Your task to perform on an android device: Open privacy settings Image 0: 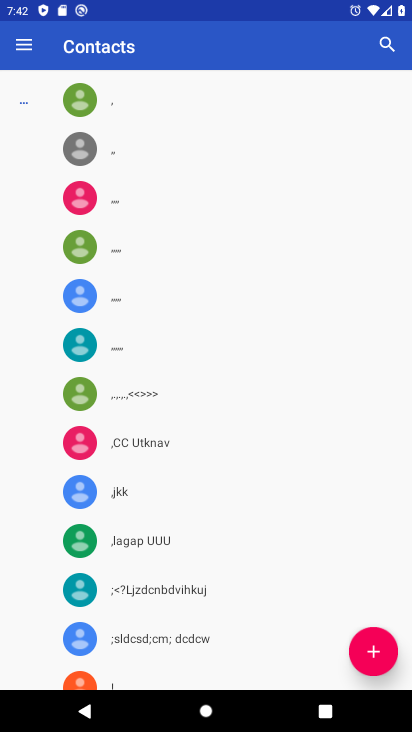
Step 0: press home button
Your task to perform on an android device: Open privacy settings Image 1: 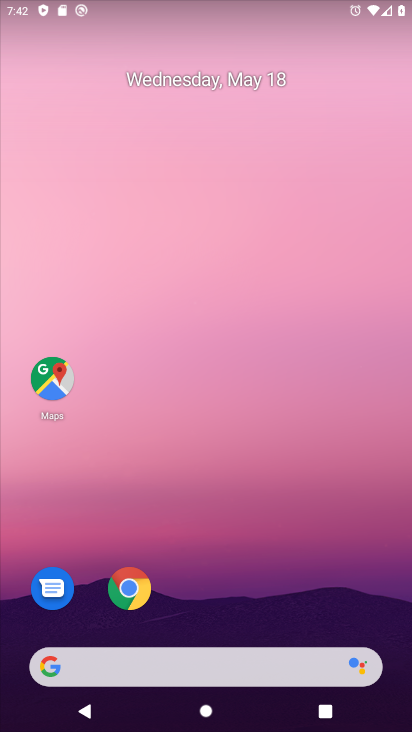
Step 1: click (138, 602)
Your task to perform on an android device: Open privacy settings Image 2: 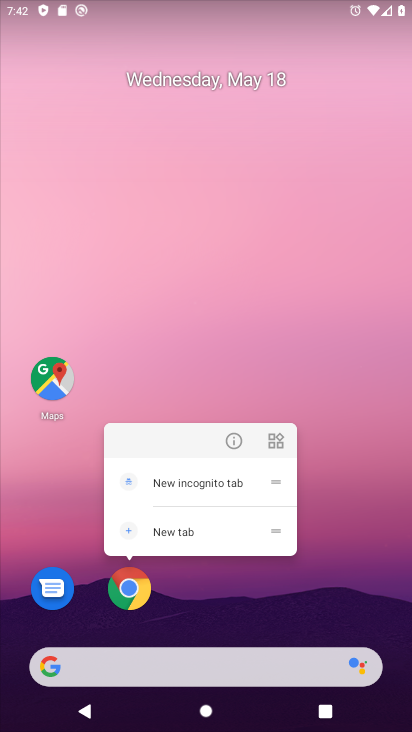
Step 2: click (138, 600)
Your task to perform on an android device: Open privacy settings Image 3: 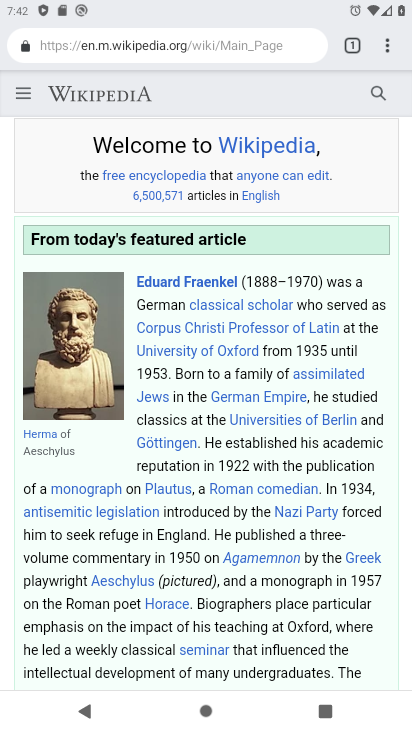
Step 3: click (389, 46)
Your task to perform on an android device: Open privacy settings Image 4: 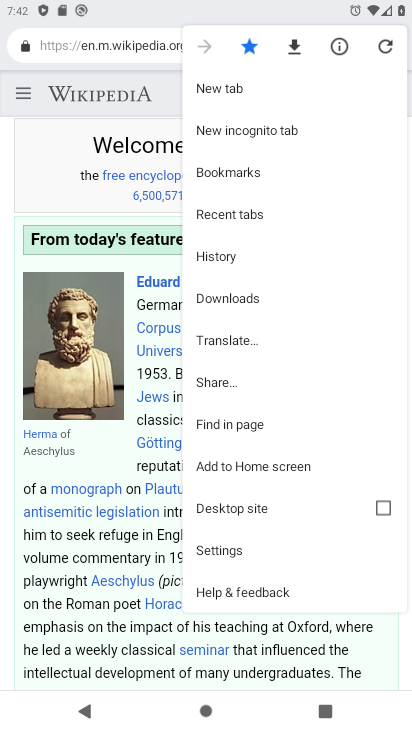
Step 4: press home button
Your task to perform on an android device: Open privacy settings Image 5: 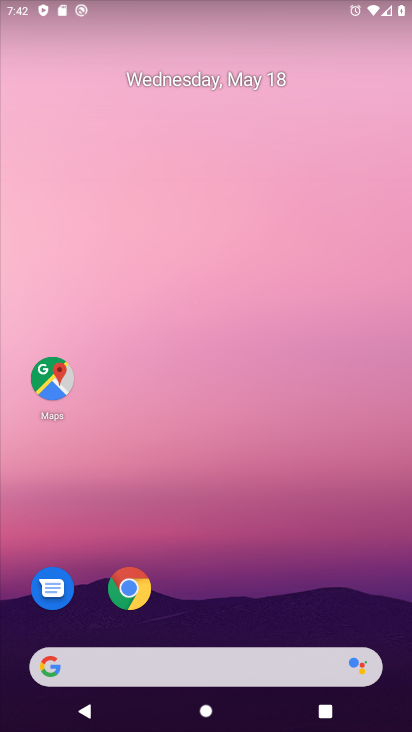
Step 5: drag from (166, 598) to (260, 80)
Your task to perform on an android device: Open privacy settings Image 6: 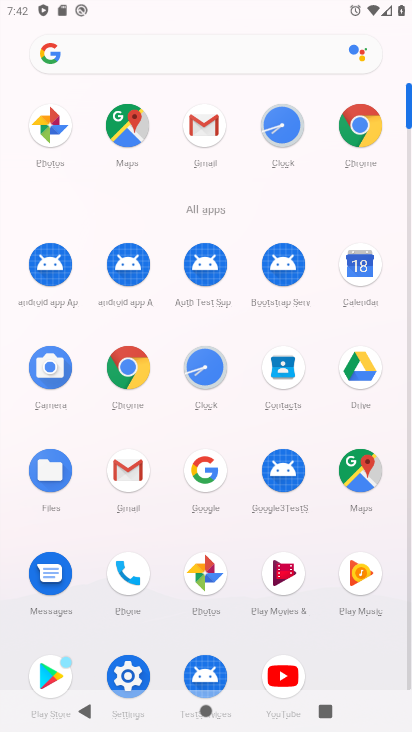
Step 6: drag from (268, 479) to (284, 312)
Your task to perform on an android device: Open privacy settings Image 7: 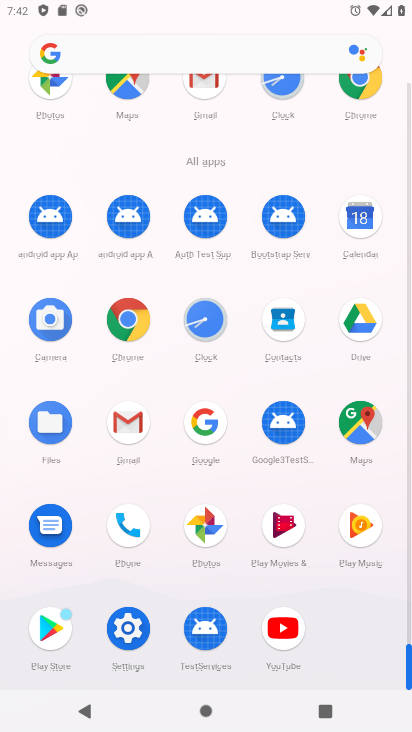
Step 7: click (132, 629)
Your task to perform on an android device: Open privacy settings Image 8: 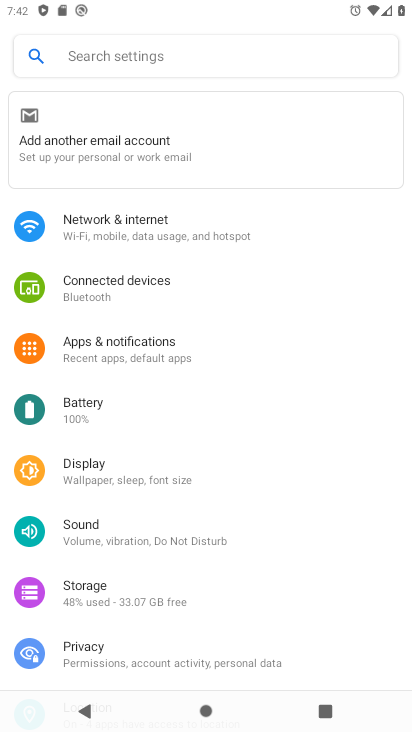
Step 8: click (84, 652)
Your task to perform on an android device: Open privacy settings Image 9: 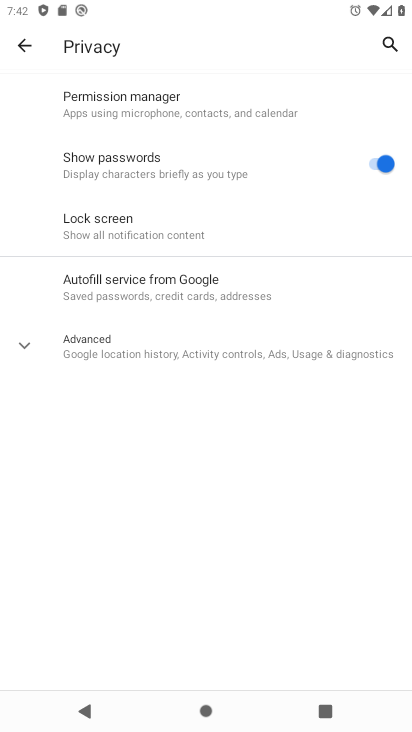
Step 9: task complete